Your task to perform on an android device: allow notifications from all sites in the chrome app Image 0: 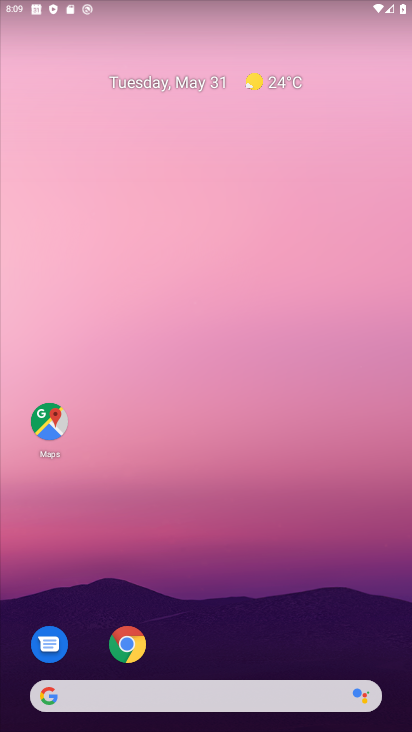
Step 0: click (127, 644)
Your task to perform on an android device: allow notifications from all sites in the chrome app Image 1: 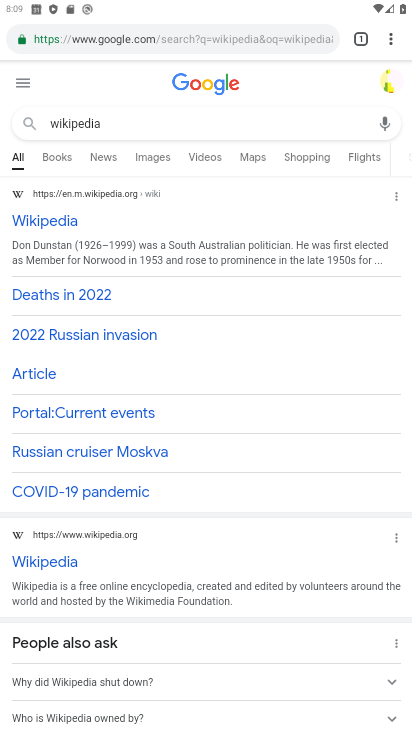
Step 1: click (392, 40)
Your task to perform on an android device: allow notifications from all sites in the chrome app Image 2: 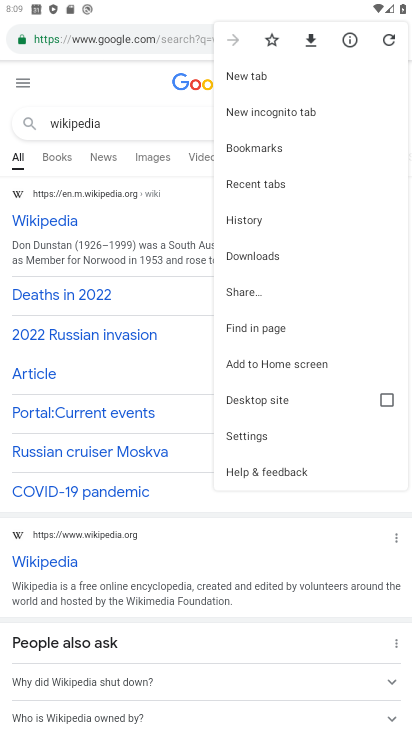
Step 2: click (230, 429)
Your task to perform on an android device: allow notifications from all sites in the chrome app Image 3: 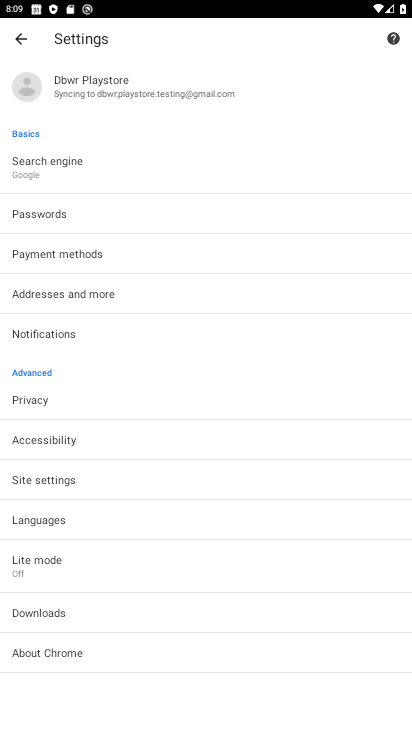
Step 3: drag from (115, 485) to (98, 117)
Your task to perform on an android device: allow notifications from all sites in the chrome app Image 4: 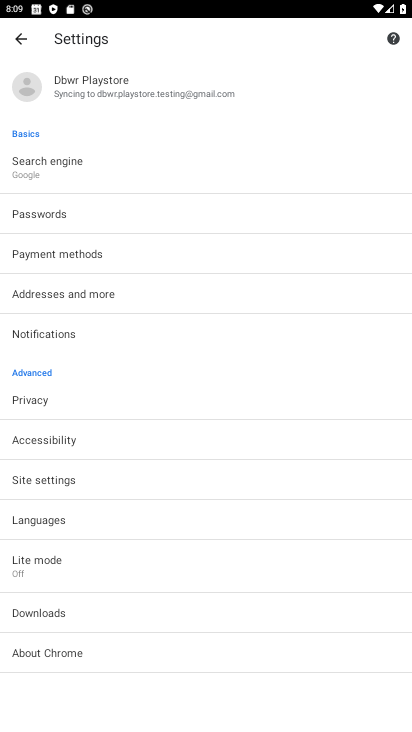
Step 4: drag from (96, 584) to (42, 328)
Your task to perform on an android device: allow notifications from all sites in the chrome app Image 5: 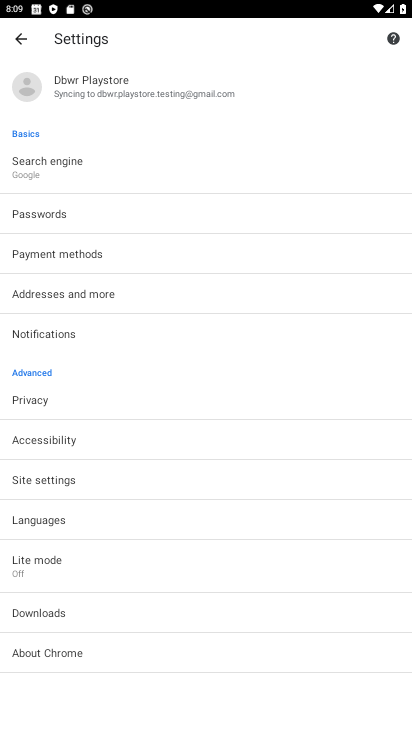
Step 5: click (24, 488)
Your task to perform on an android device: allow notifications from all sites in the chrome app Image 6: 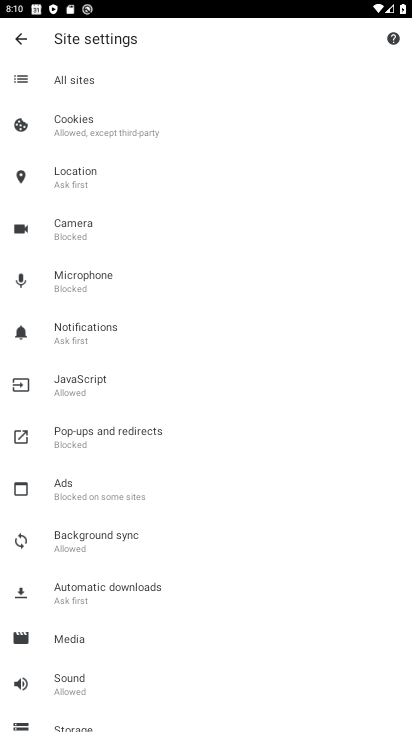
Step 6: click (66, 330)
Your task to perform on an android device: allow notifications from all sites in the chrome app Image 7: 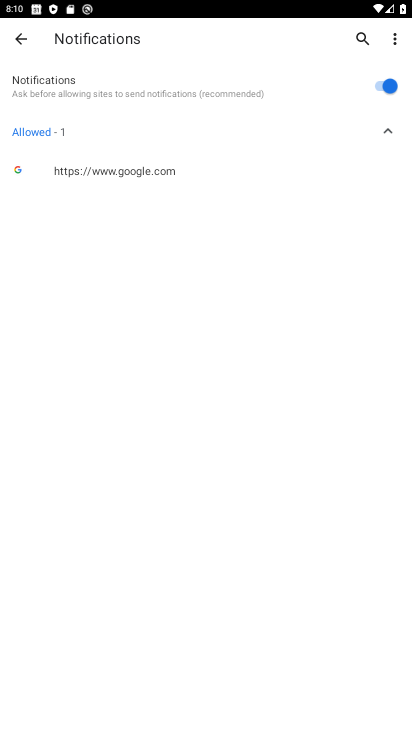
Step 7: task complete